Your task to perform on an android device: install app "Truecaller" Image 0: 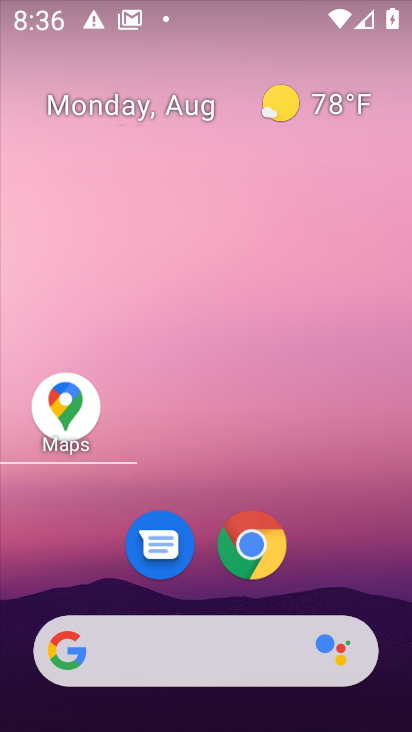
Step 0: click (343, 68)
Your task to perform on an android device: install app "Truecaller" Image 1: 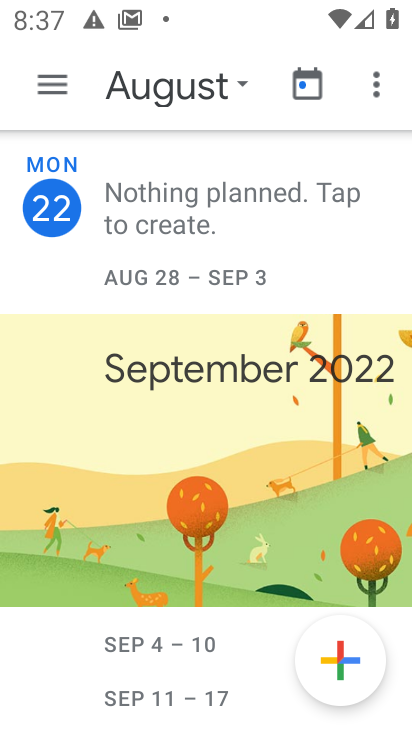
Step 1: press home button
Your task to perform on an android device: install app "Truecaller" Image 2: 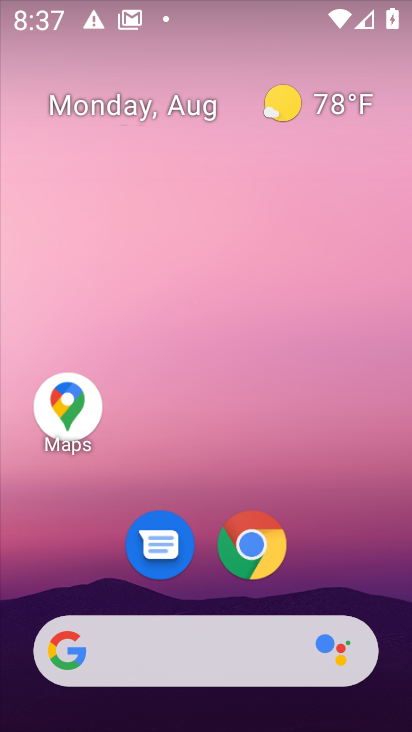
Step 2: drag from (340, 468) to (352, 89)
Your task to perform on an android device: install app "Truecaller" Image 3: 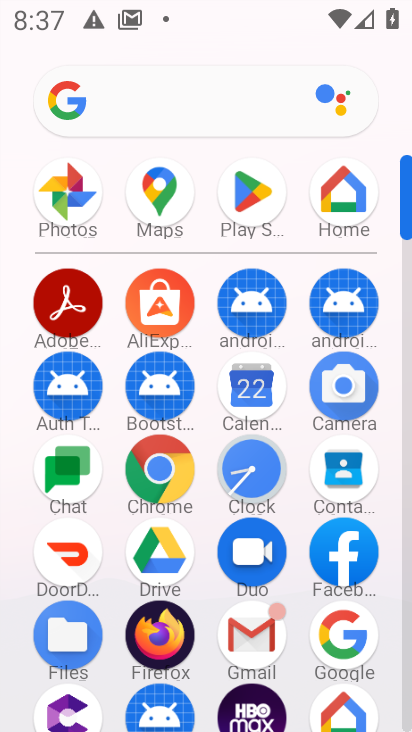
Step 3: click (260, 185)
Your task to perform on an android device: install app "Truecaller" Image 4: 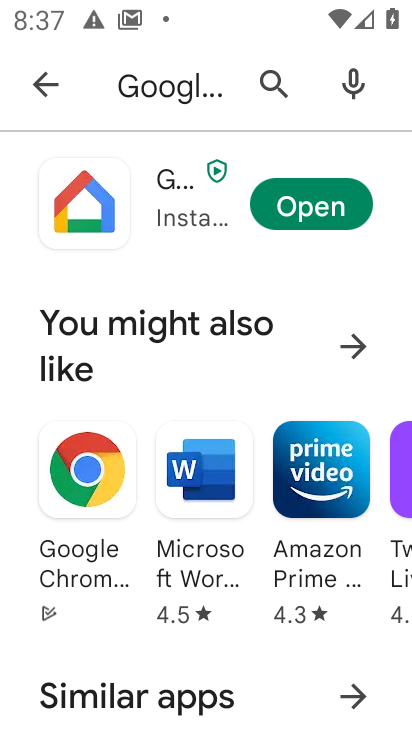
Step 4: press back button
Your task to perform on an android device: install app "Truecaller" Image 5: 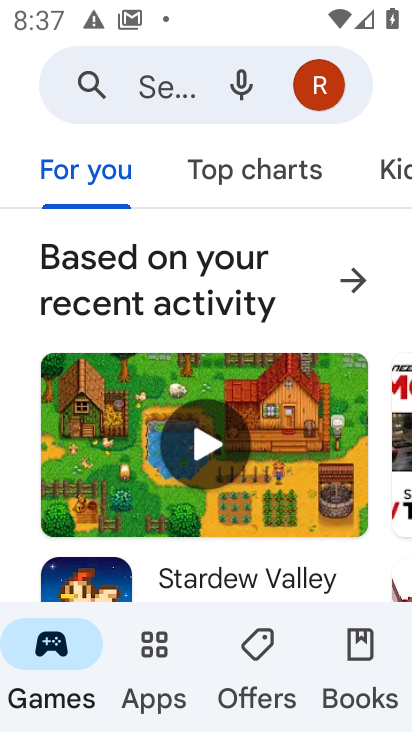
Step 5: click (170, 85)
Your task to perform on an android device: install app "Truecaller" Image 6: 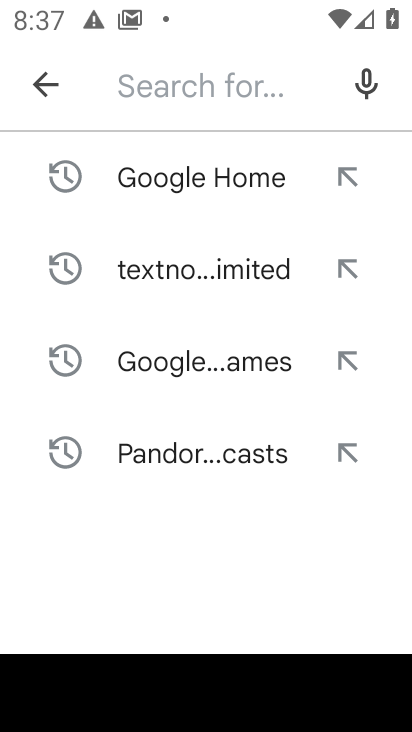
Step 6: type "Truecaller"
Your task to perform on an android device: install app "Truecaller" Image 7: 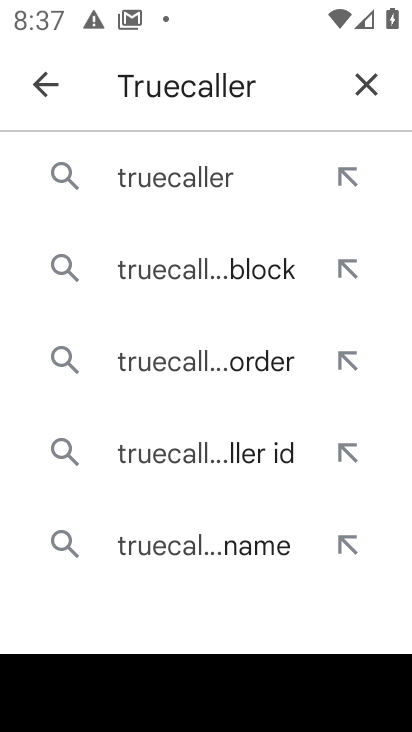
Step 7: click (205, 167)
Your task to perform on an android device: install app "Truecaller" Image 8: 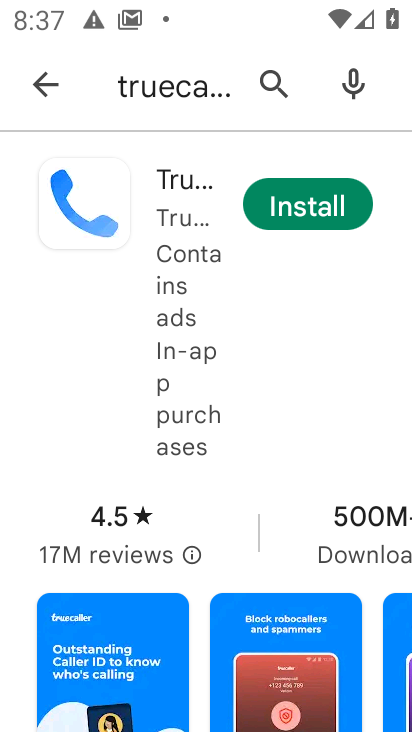
Step 8: click (335, 200)
Your task to perform on an android device: install app "Truecaller" Image 9: 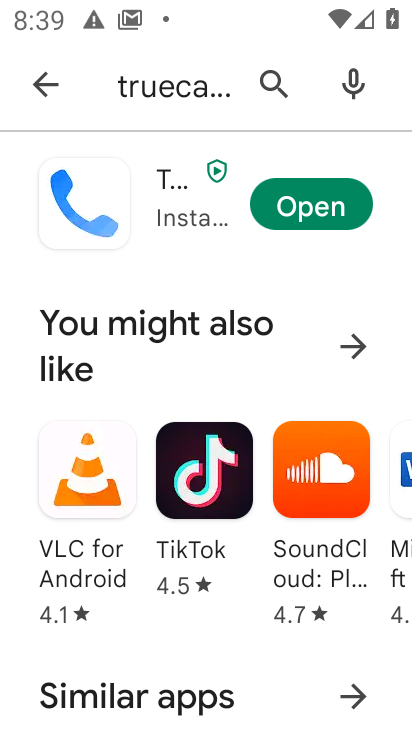
Step 9: task complete